Your task to perform on an android device: allow notifications from all sites in the chrome app Image 0: 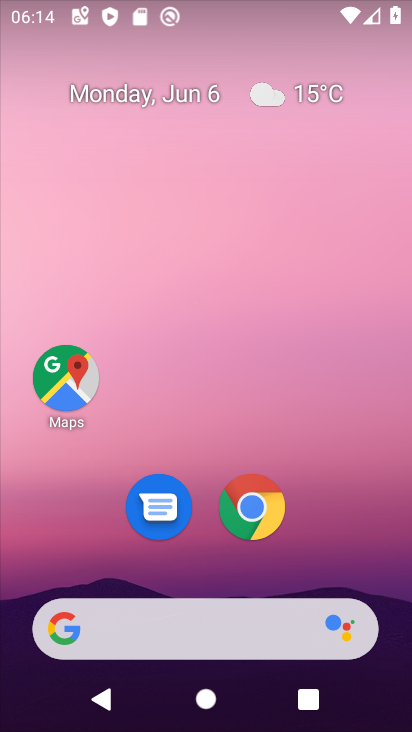
Step 0: press home button
Your task to perform on an android device: allow notifications from all sites in the chrome app Image 1: 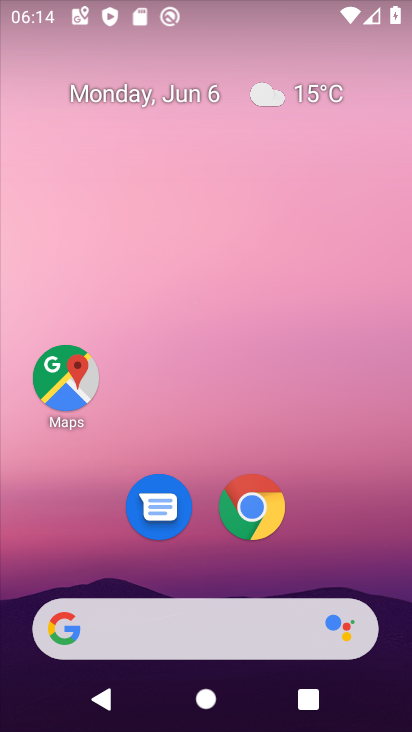
Step 1: click (244, 512)
Your task to perform on an android device: allow notifications from all sites in the chrome app Image 2: 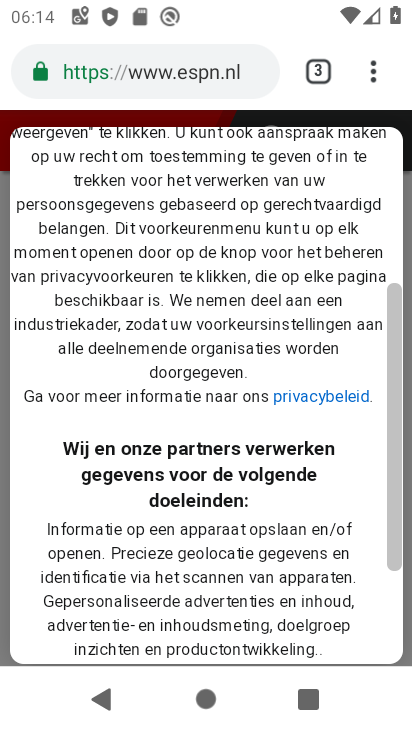
Step 2: click (375, 71)
Your task to perform on an android device: allow notifications from all sites in the chrome app Image 3: 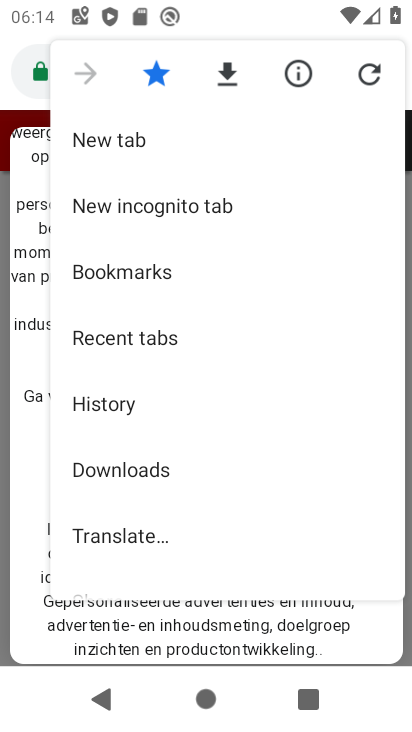
Step 3: drag from (124, 499) to (99, 97)
Your task to perform on an android device: allow notifications from all sites in the chrome app Image 4: 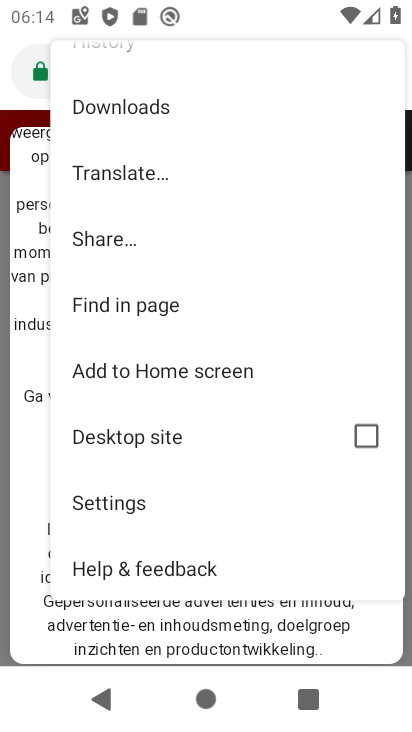
Step 4: click (105, 497)
Your task to perform on an android device: allow notifications from all sites in the chrome app Image 5: 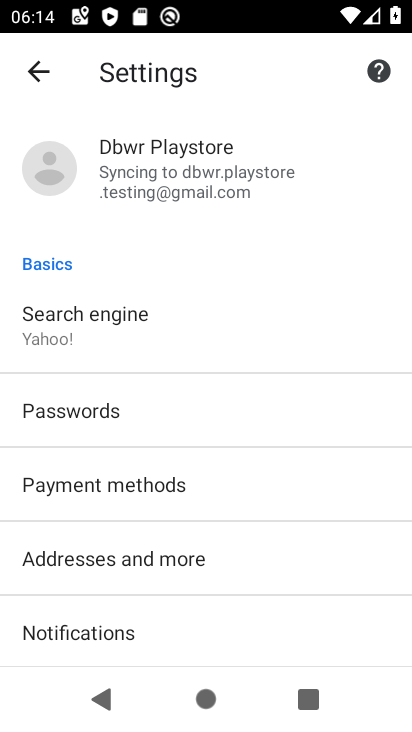
Step 5: drag from (99, 578) to (104, 175)
Your task to perform on an android device: allow notifications from all sites in the chrome app Image 6: 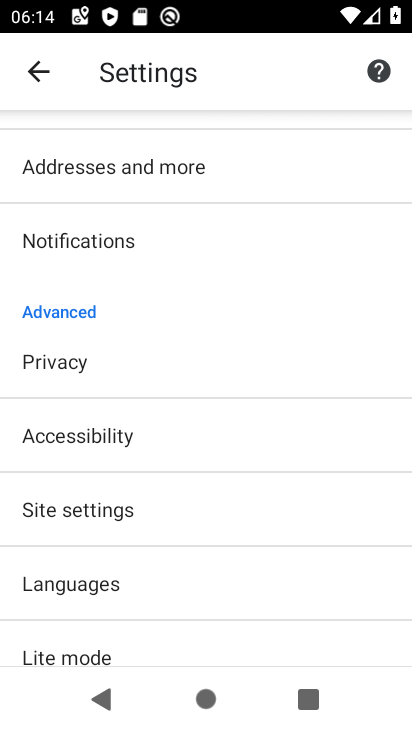
Step 6: click (103, 513)
Your task to perform on an android device: allow notifications from all sites in the chrome app Image 7: 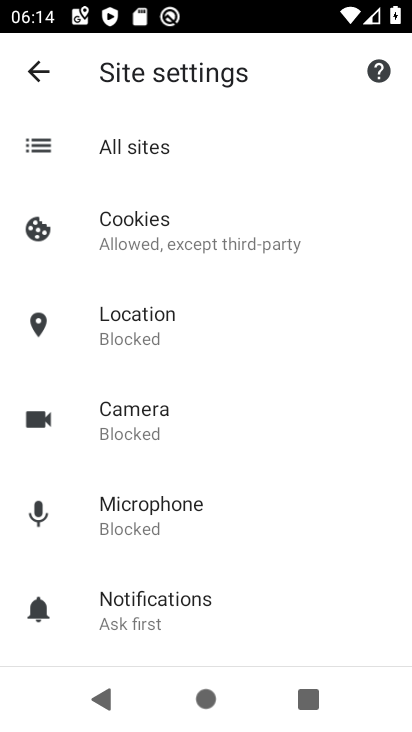
Step 7: click (110, 145)
Your task to perform on an android device: allow notifications from all sites in the chrome app Image 8: 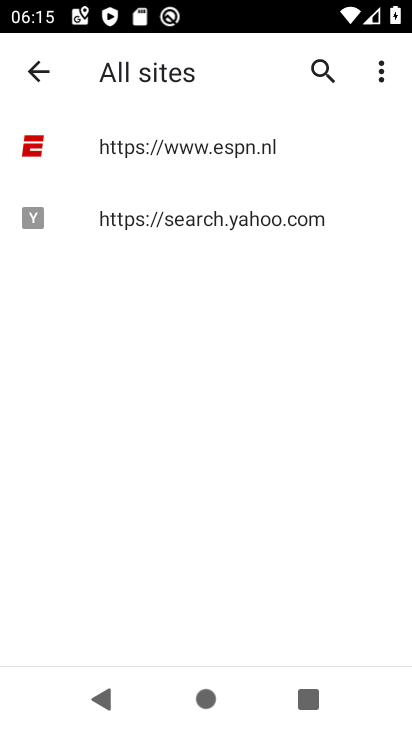
Step 8: click (176, 225)
Your task to perform on an android device: allow notifications from all sites in the chrome app Image 9: 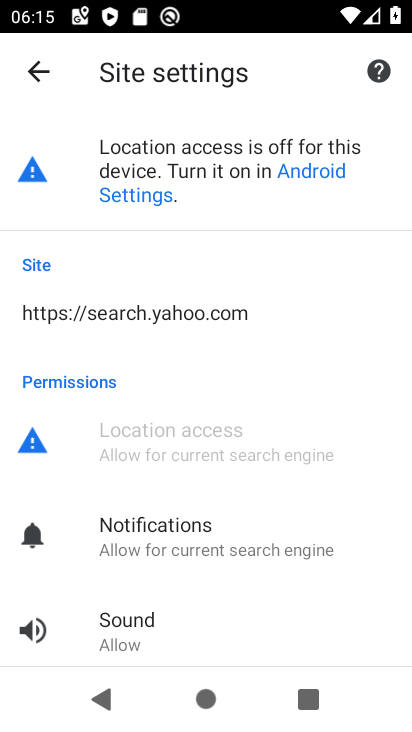
Step 9: click (185, 556)
Your task to perform on an android device: allow notifications from all sites in the chrome app Image 10: 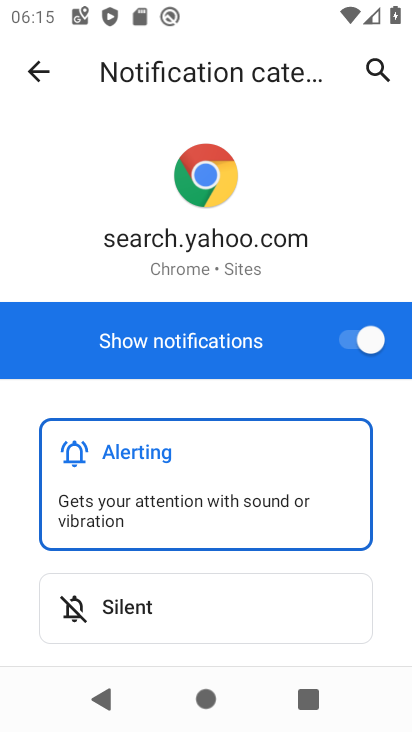
Step 10: click (49, 54)
Your task to perform on an android device: allow notifications from all sites in the chrome app Image 11: 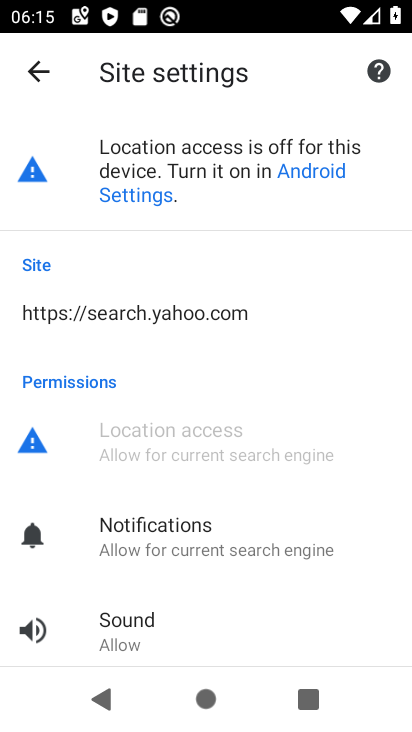
Step 11: click (161, 557)
Your task to perform on an android device: allow notifications from all sites in the chrome app Image 12: 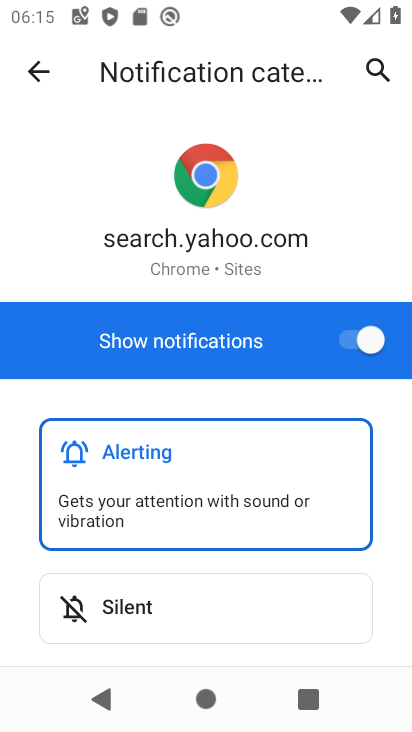
Step 12: task complete